Your task to perform on an android device: Open Maps and search for coffee Image 0: 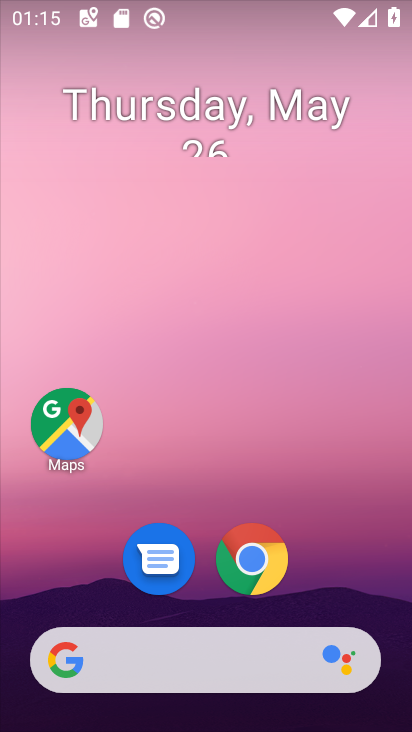
Step 0: click (83, 421)
Your task to perform on an android device: Open Maps and search for coffee Image 1: 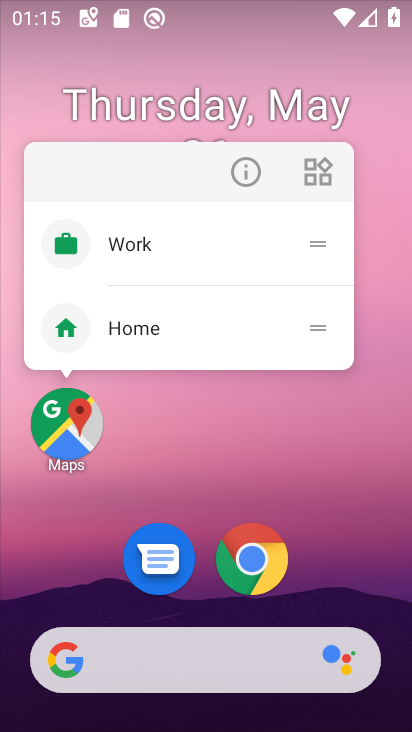
Step 1: click (70, 433)
Your task to perform on an android device: Open Maps and search for coffee Image 2: 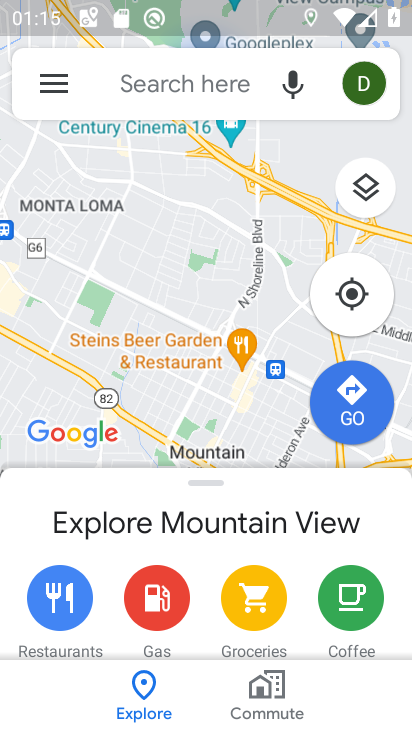
Step 2: click (356, 601)
Your task to perform on an android device: Open Maps and search for coffee Image 3: 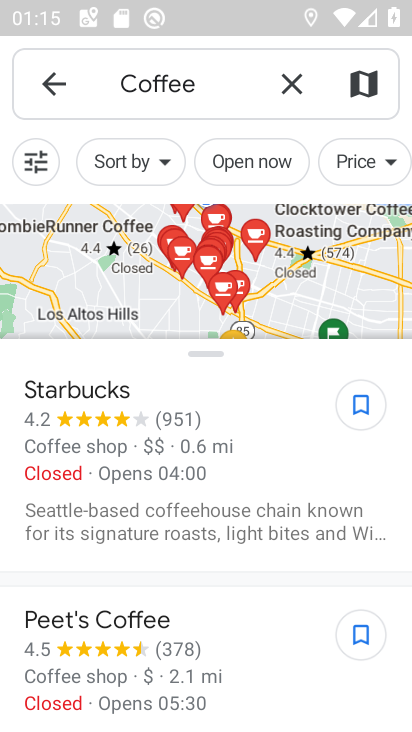
Step 3: task complete